Your task to perform on an android device: Check the weather Image 0: 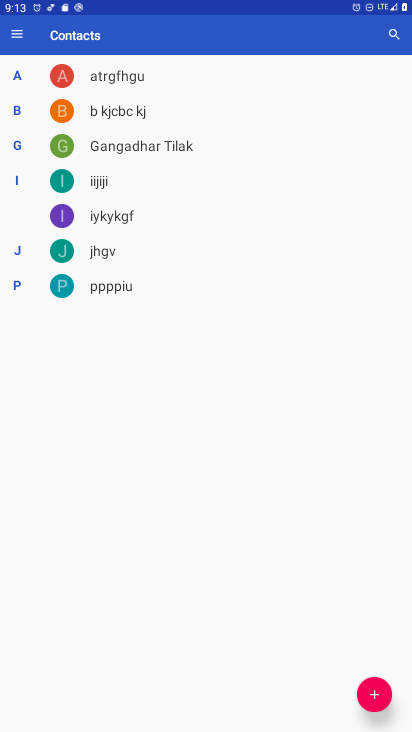
Step 0: press home button
Your task to perform on an android device: Check the weather Image 1: 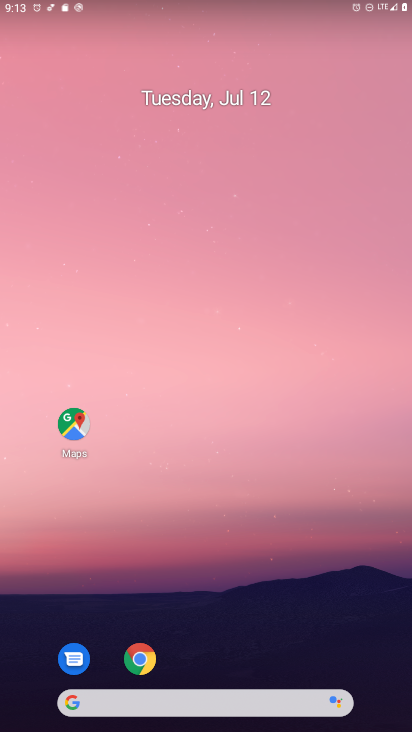
Step 1: drag from (190, 711) to (182, 274)
Your task to perform on an android device: Check the weather Image 2: 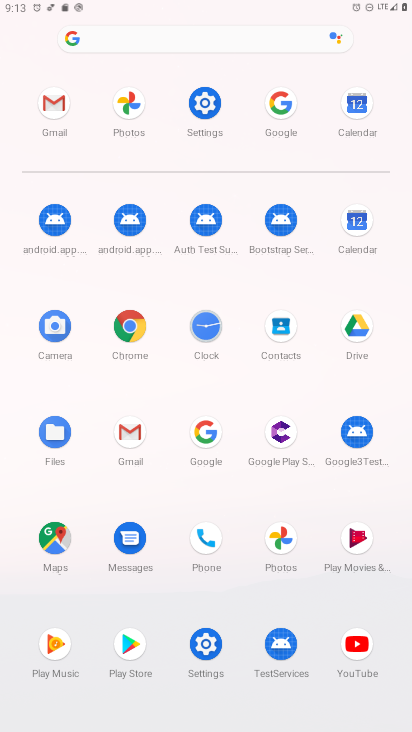
Step 2: click (280, 103)
Your task to perform on an android device: Check the weather Image 3: 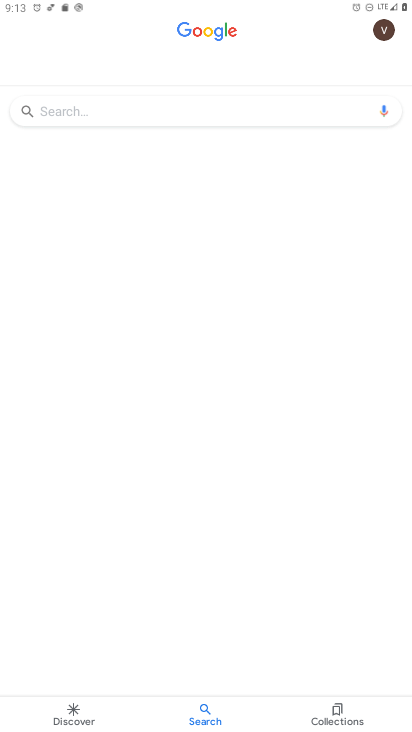
Step 3: click (181, 112)
Your task to perform on an android device: Check the weather Image 4: 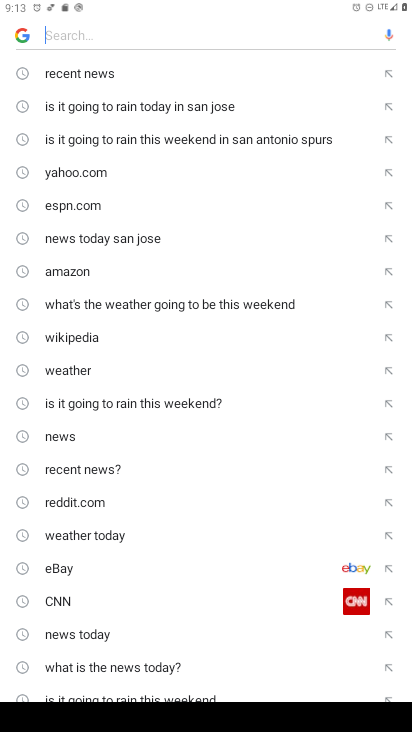
Step 4: click (86, 368)
Your task to perform on an android device: Check the weather Image 5: 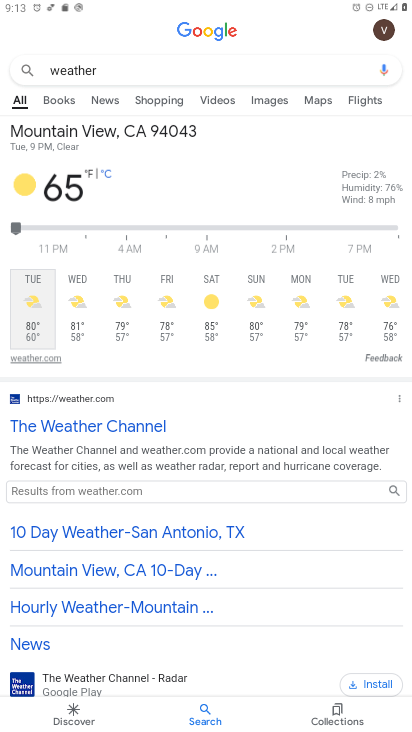
Step 5: task complete